Your task to perform on an android device: Look up the best rated Nike shoes on Nike.com Image 0: 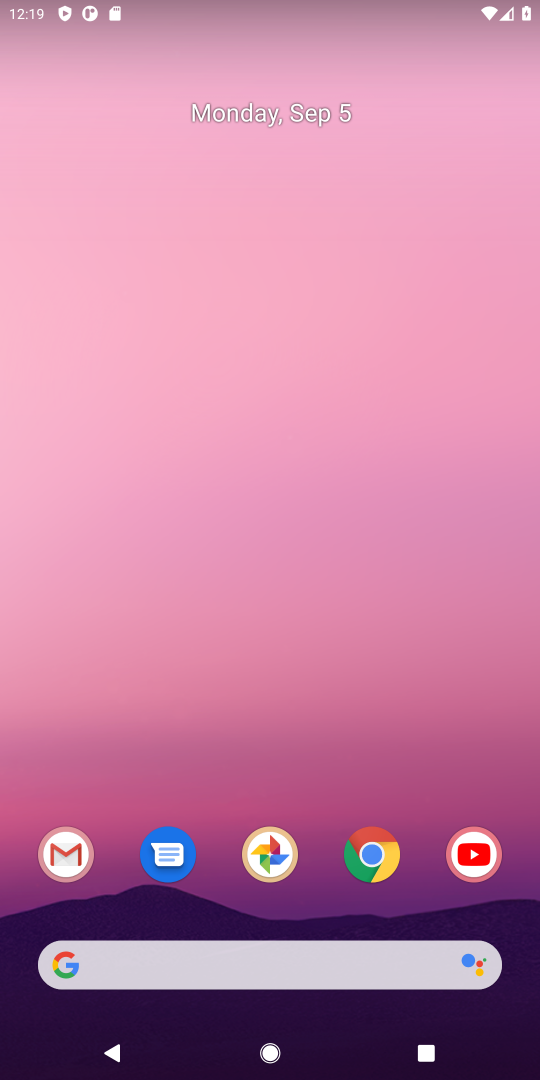
Step 0: click (377, 853)
Your task to perform on an android device: Look up the best rated Nike shoes on Nike.com Image 1: 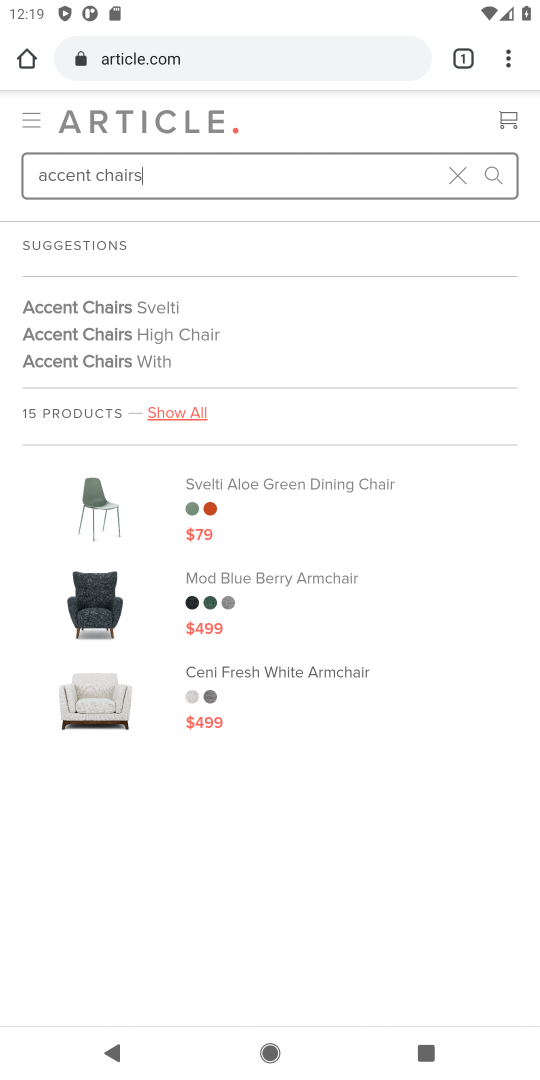
Step 1: click (322, 55)
Your task to perform on an android device: Look up the best rated Nike shoes on Nike.com Image 2: 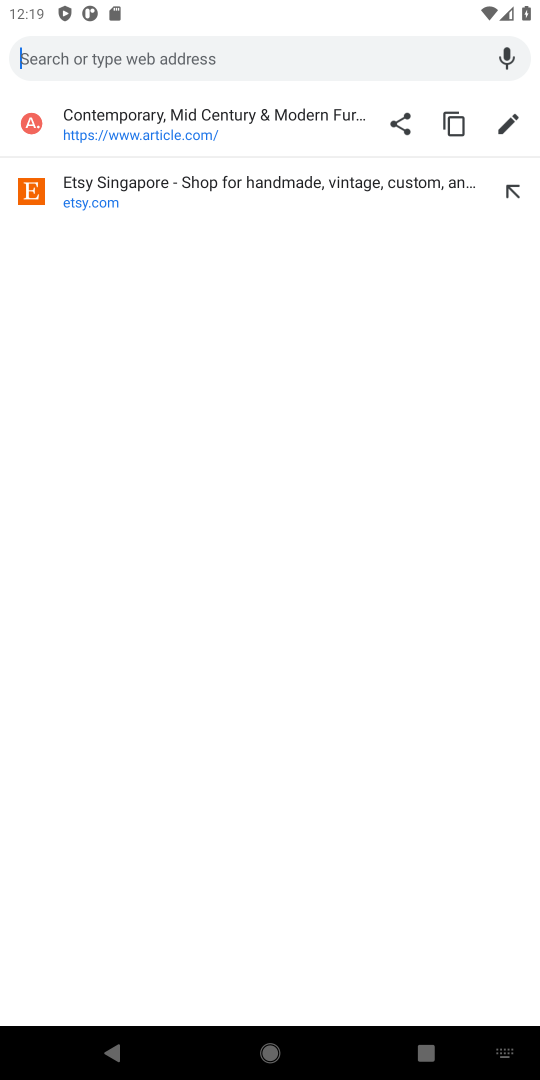
Step 2: type " Nike.com"
Your task to perform on an android device: Look up the best rated Nike shoes on Nike.com Image 3: 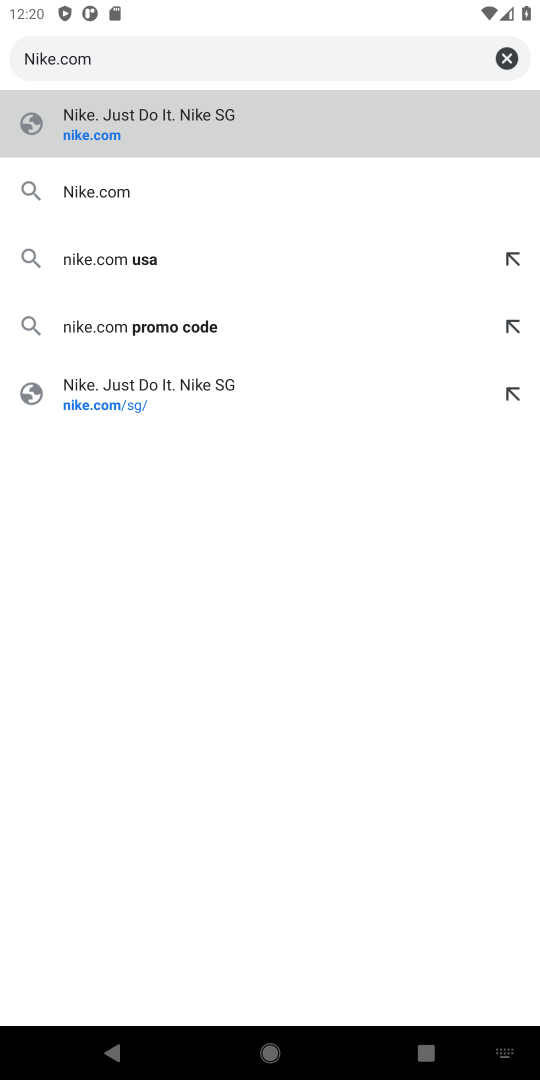
Step 3: press enter
Your task to perform on an android device: Look up the best rated Nike shoes on Nike.com Image 4: 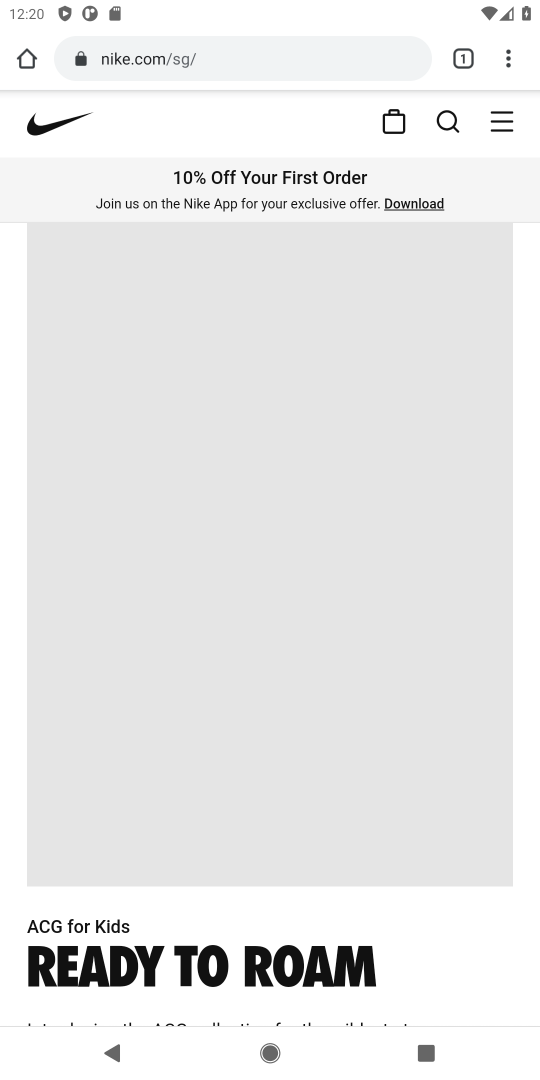
Step 4: click (433, 132)
Your task to perform on an android device: Look up the best rated Nike shoes on Nike.com Image 5: 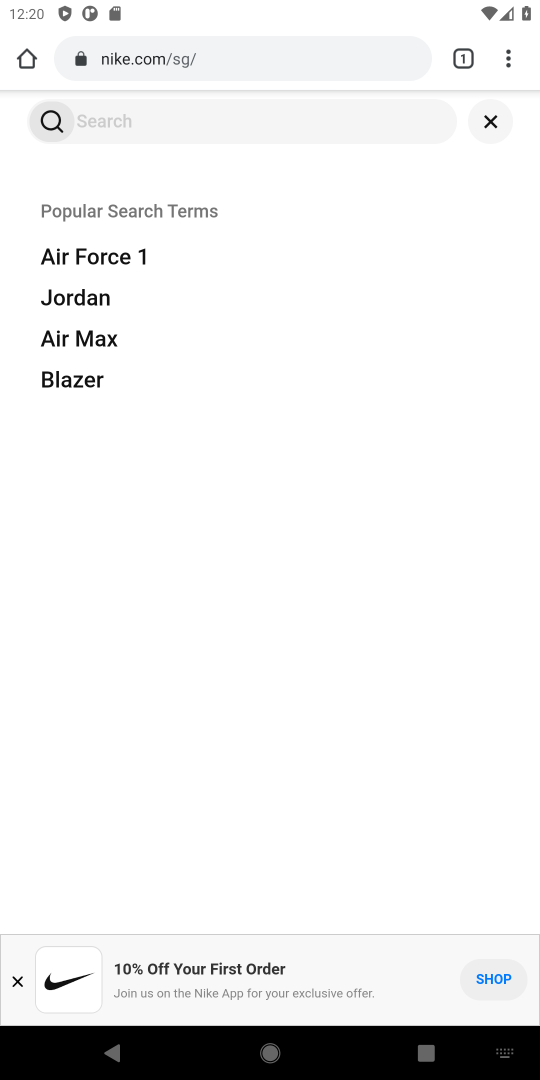
Step 5: type "Nike shoes"
Your task to perform on an android device: Look up the best rated Nike shoes on Nike.com Image 6: 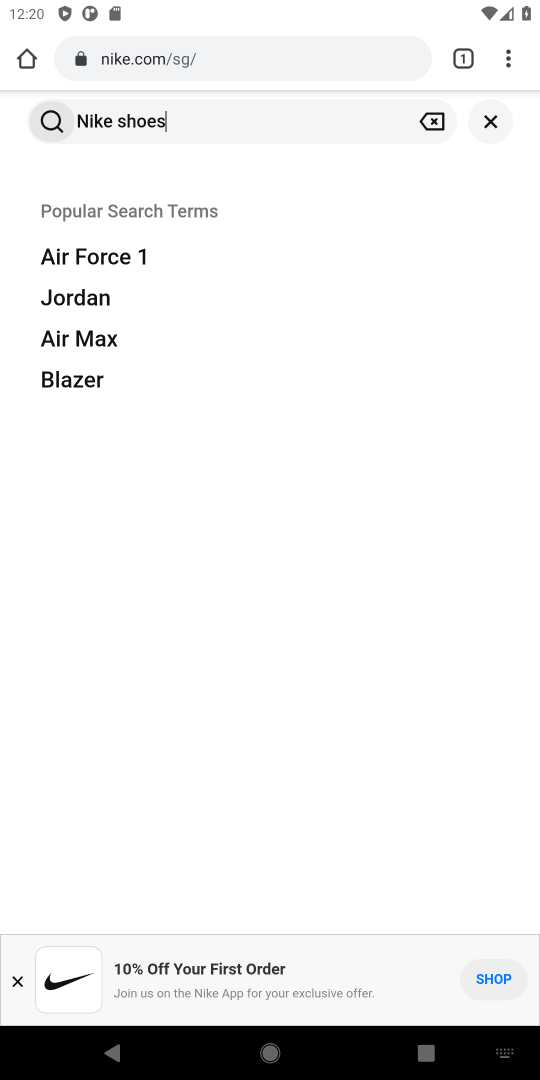
Step 6: press enter
Your task to perform on an android device: Look up the best rated Nike shoes on Nike.com Image 7: 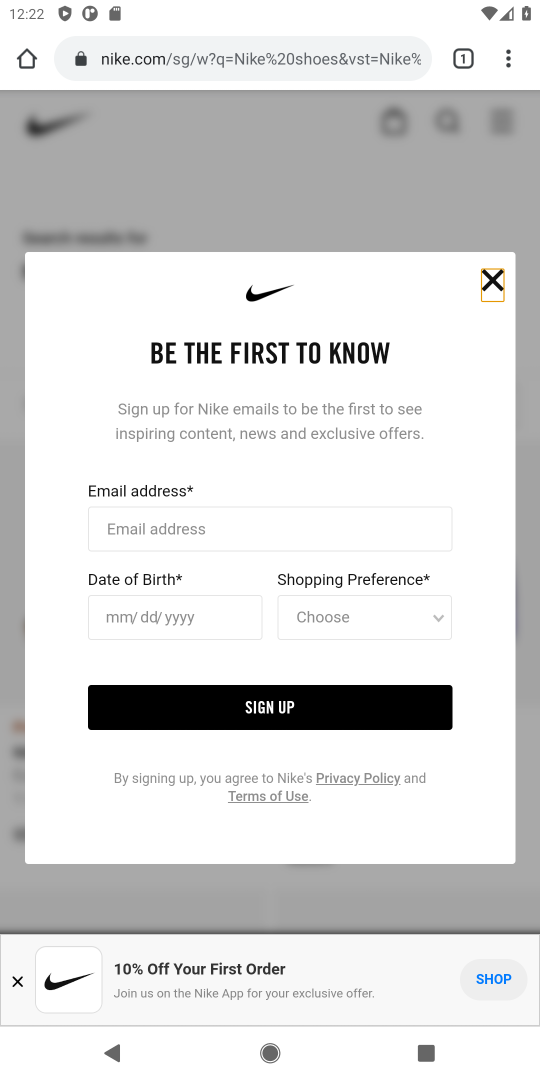
Step 7: click (487, 283)
Your task to perform on an android device: Look up the best rated Nike shoes on Nike.com Image 8: 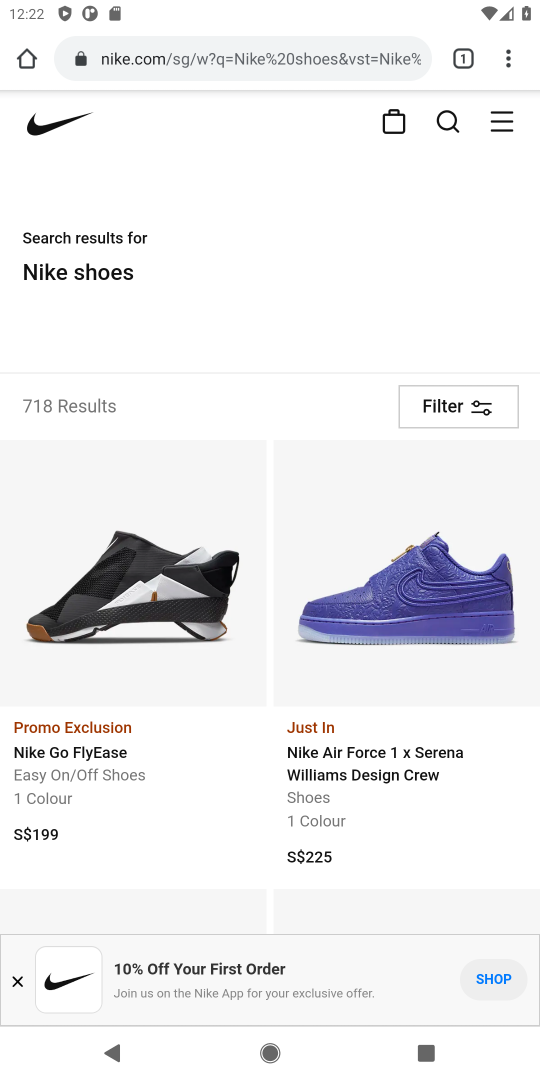
Step 8: task complete